Your task to perform on an android device: turn on priority inbox in the gmail app Image 0: 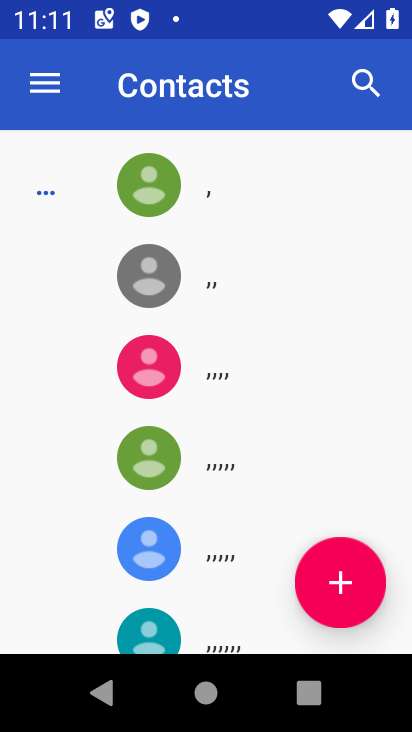
Step 0: press home button
Your task to perform on an android device: turn on priority inbox in the gmail app Image 1: 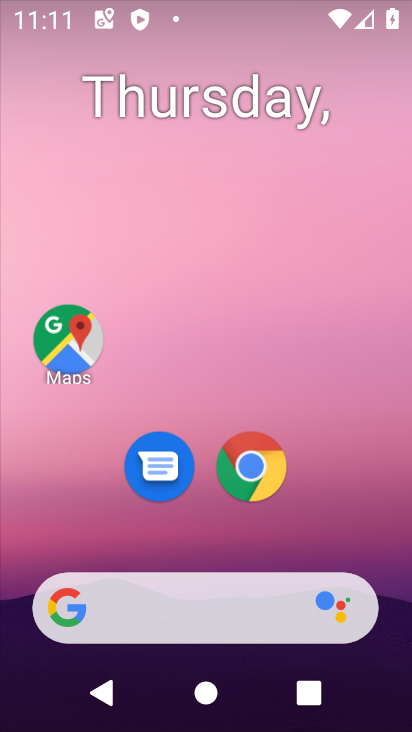
Step 1: drag from (383, 634) to (245, 60)
Your task to perform on an android device: turn on priority inbox in the gmail app Image 2: 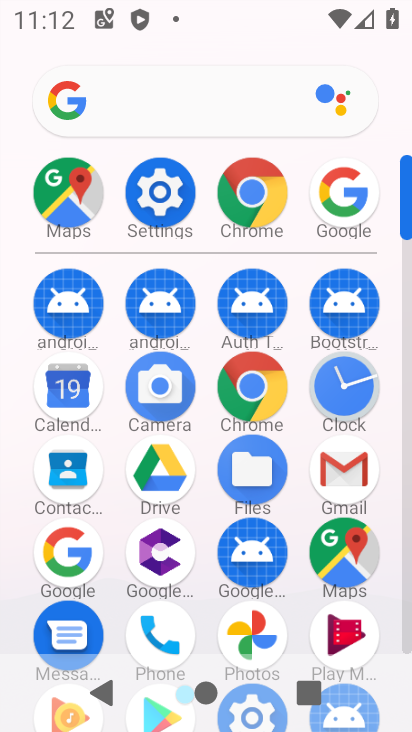
Step 2: click (318, 480)
Your task to perform on an android device: turn on priority inbox in the gmail app Image 3: 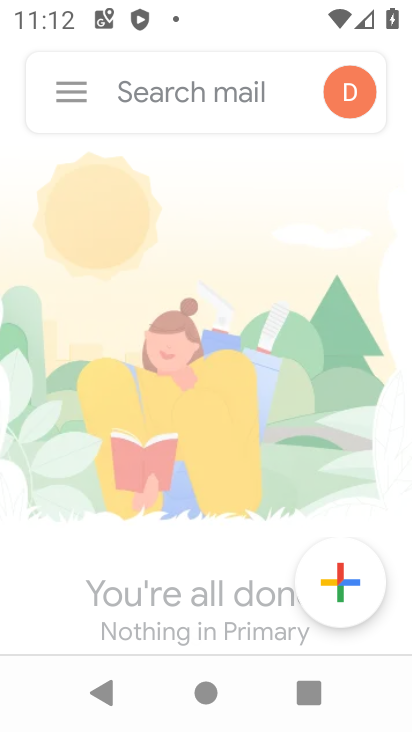
Step 3: click (48, 85)
Your task to perform on an android device: turn on priority inbox in the gmail app Image 4: 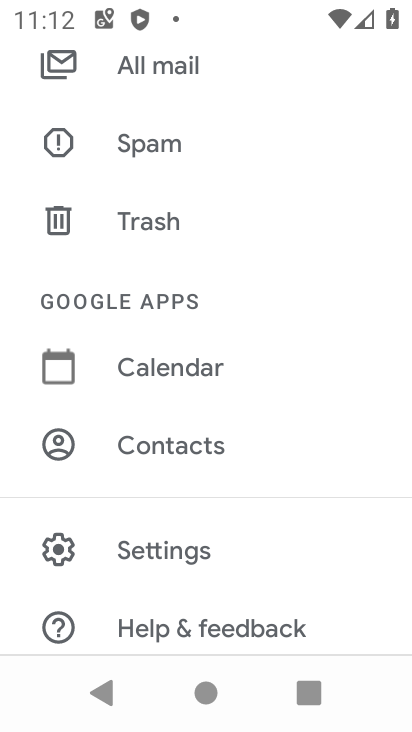
Step 4: click (239, 562)
Your task to perform on an android device: turn on priority inbox in the gmail app Image 5: 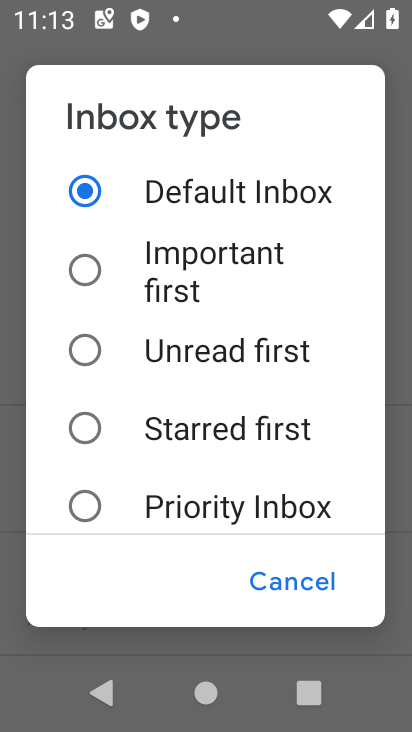
Step 5: click (77, 512)
Your task to perform on an android device: turn on priority inbox in the gmail app Image 6: 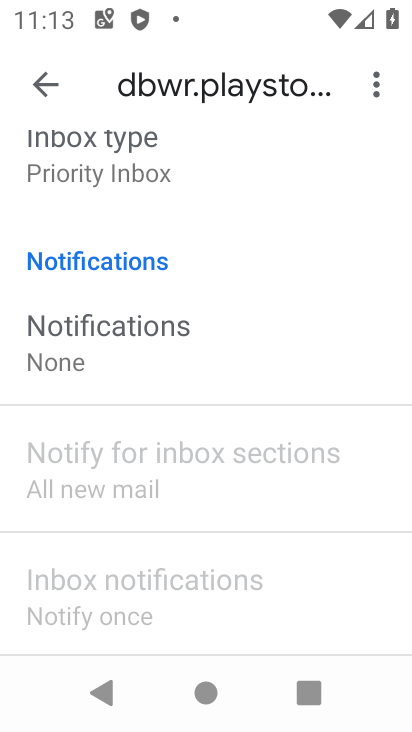
Step 6: task complete